Your task to perform on an android device: Is it going to rain this weekend? Image 0: 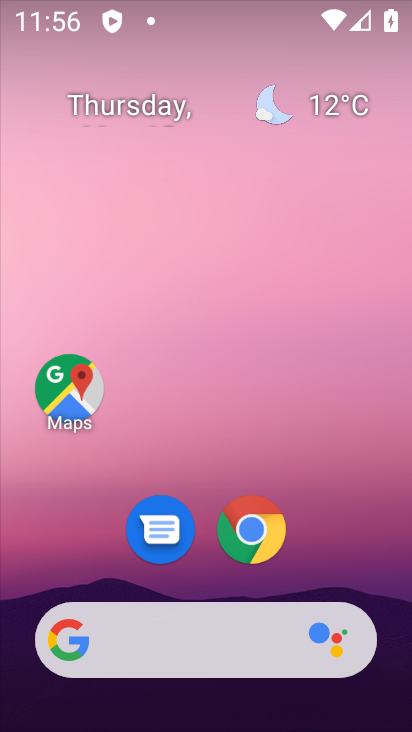
Step 0: drag from (310, 581) to (300, 267)
Your task to perform on an android device: Is it going to rain this weekend? Image 1: 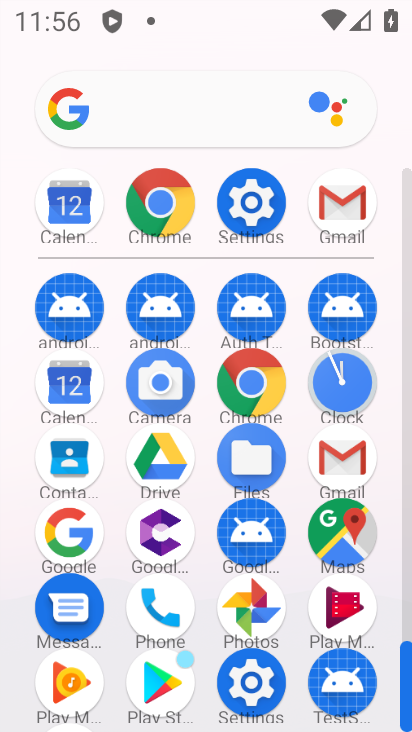
Step 1: click (170, 192)
Your task to perform on an android device: Is it going to rain this weekend? Image 2: 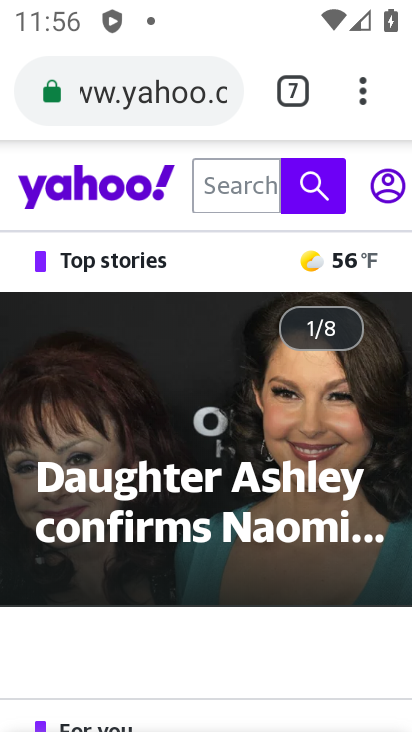
Step 2: click (350, 92)
Your task to perform on an android device: Is it going to rain this weekend? Image 3: 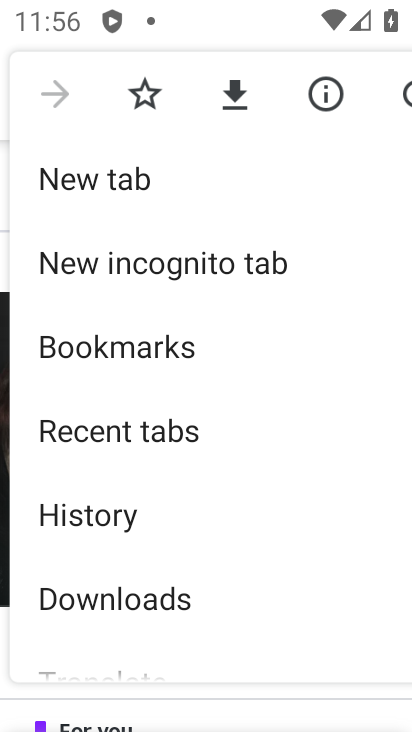
Step 3: click (88, 169)
Your task to perform on an android device: Is it going to rain this weekend? Image 4: 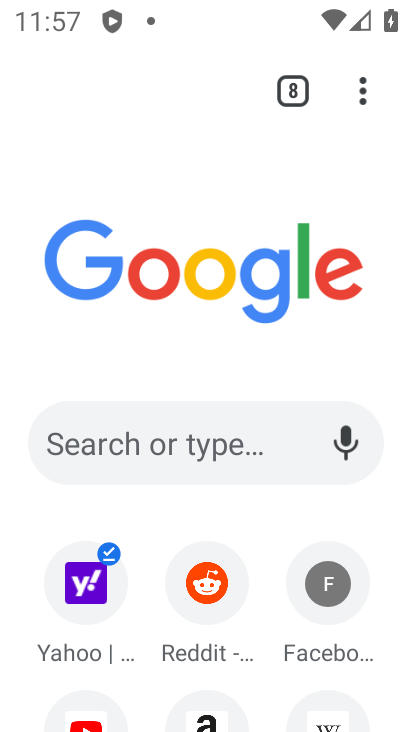
Step 4: click (112, 435)
Your task to perform on an android device: Is it going to rain this weekend? Image 5: 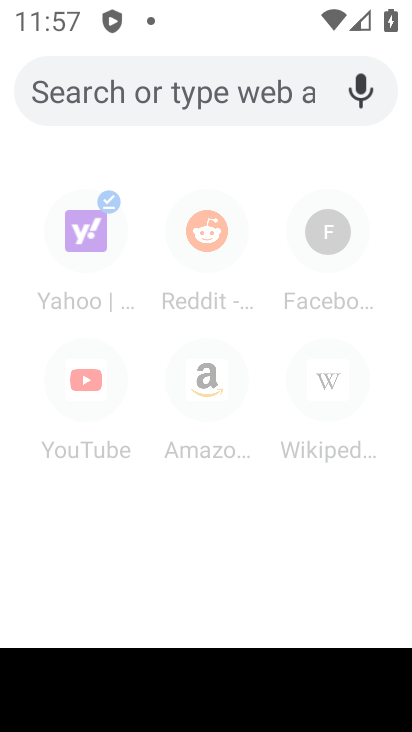
Step 5: type "Is it going to rain this weekend?"
Your task to perform on an android device: Is it going to rain this weekend? Image 6: 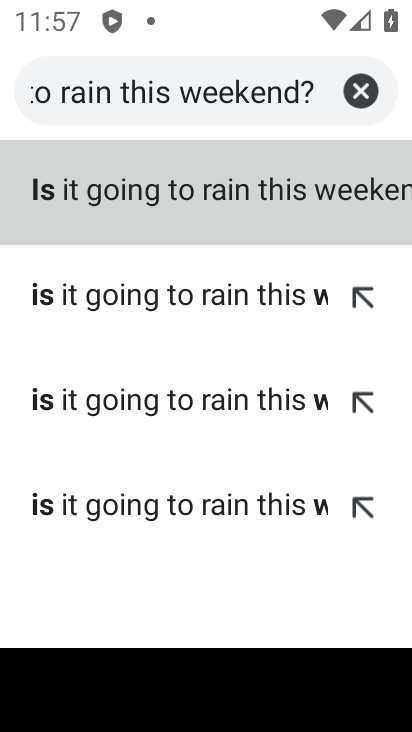
Step 6: click (288, 202)
Your task to perform on an android device: Is it going to rain this weekend? Image 7: 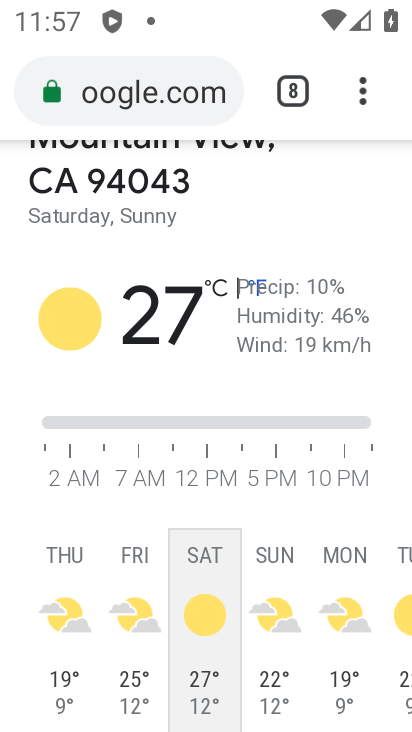
Step 7: task complete